Your task to perform on an android device: Search for pizza restaurants on Maps Image 0: 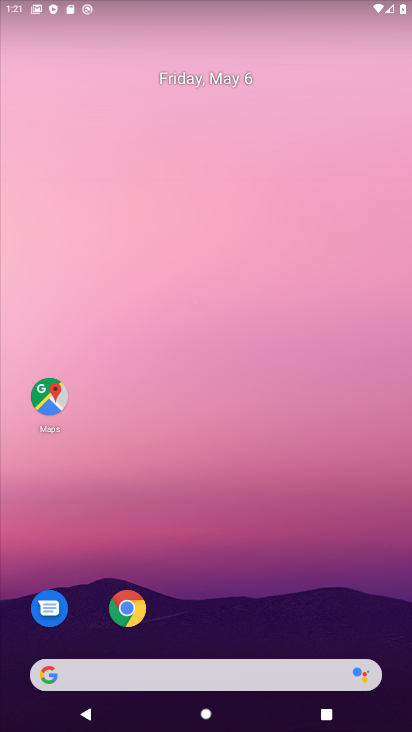
Step 0: click (54, 395)
Your task to perform on an android device: Search for pizza restaurants on Maps Image 1: 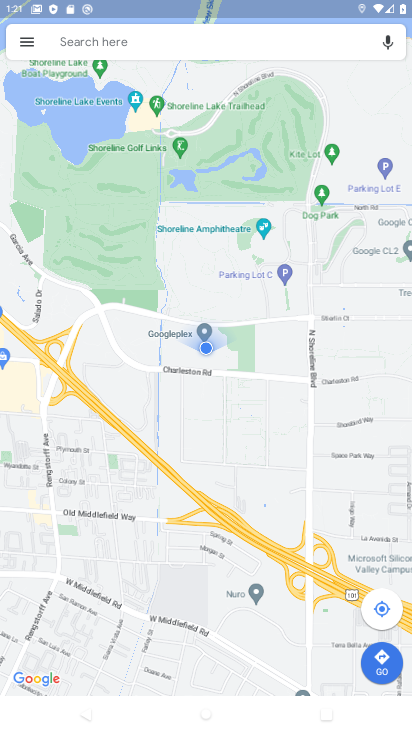
Step 1: click (55, 42)
Your task to perform on an android device: Search for pizza restaurants on Maps Image 2: 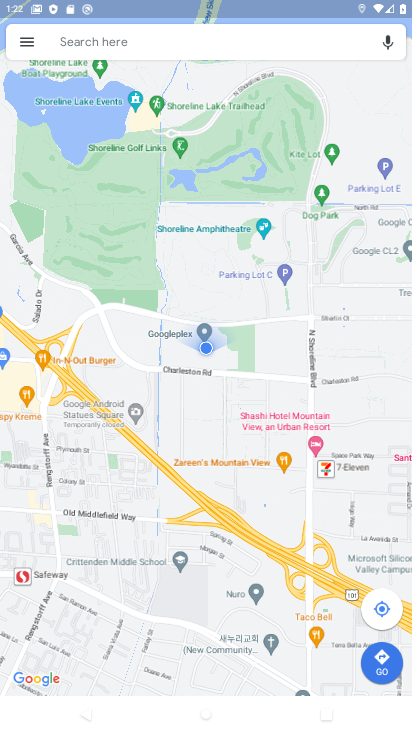
Step 2: type "pizza"
Your task to perform on an android device: Search for pizza restaurants on Maps Image 3: 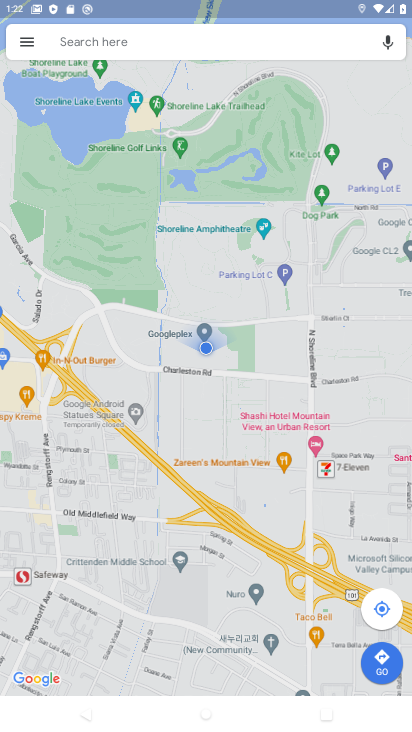
Step 3: click (112, 36)
Your task to perform on an android device: Search for pizza restaurants on Maps Image 4: 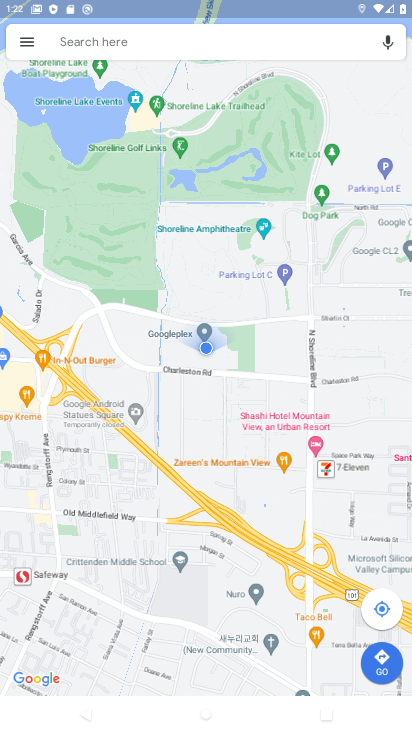
Step 4: click (99, 41)
Your task to perform on an android device: Search for pizza restaurants on Maps Image 5: 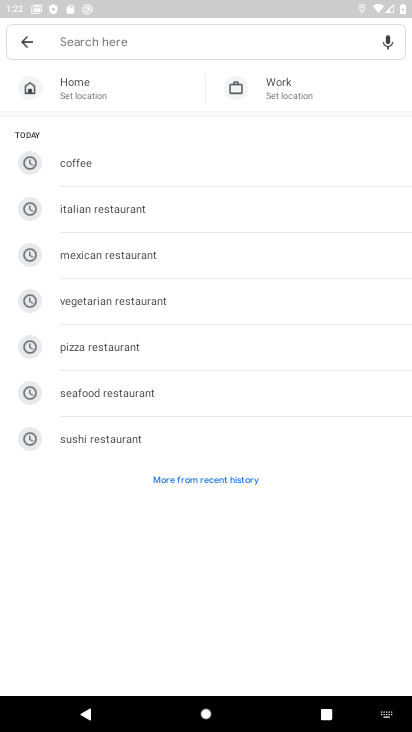
Step 5: type "pizza restaurants"
Your task to perform on an android device: Search for pizza restaurants on Maps Image 6: 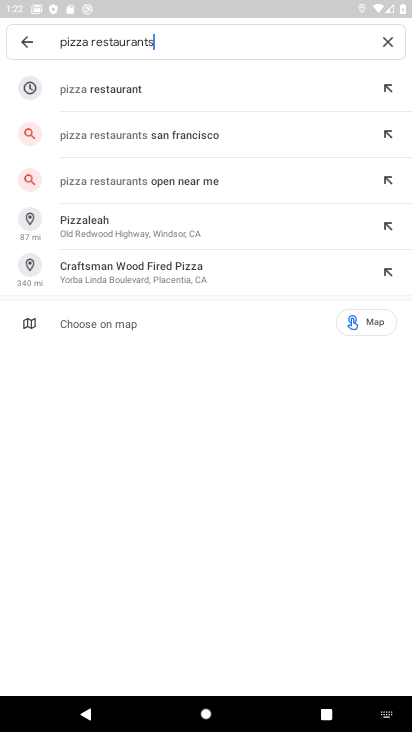
Step 6: click (118, 93)
Your task to perform on an android device: Search for pizza restaurants on Maps Image 7: 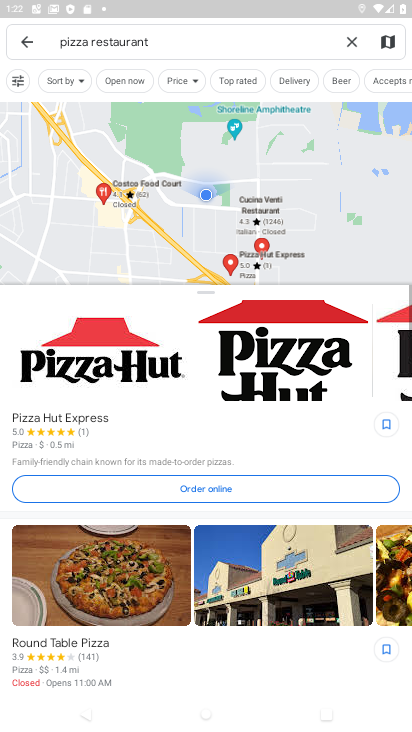
Step 7: click (196, 47)
Your task to perform on an android device: Search for pizza restaurants on Maps Image 8: 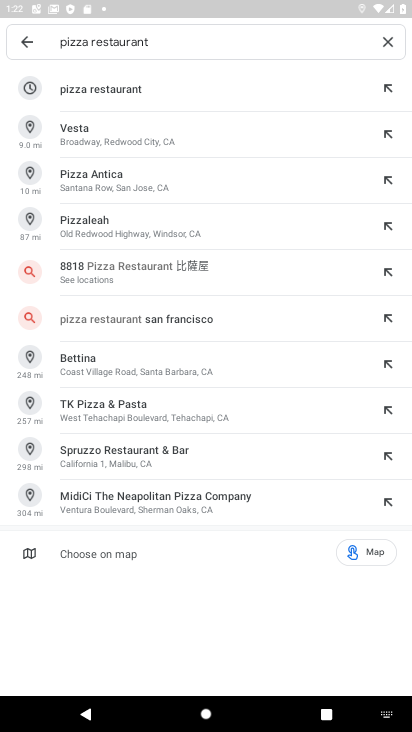
Step 8: task complete